Your task to perform on an android device: turn on data saver in the chrome app Image 0: 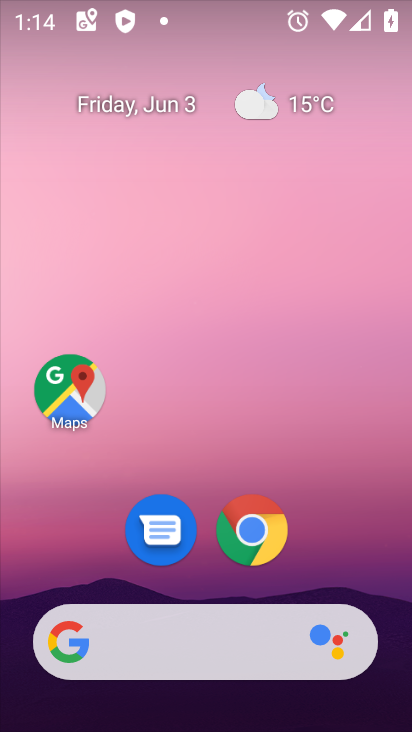
Step 0: click (259, 535)
Your task to perform on an android device: turn on data saver in the chrome app Image 1: 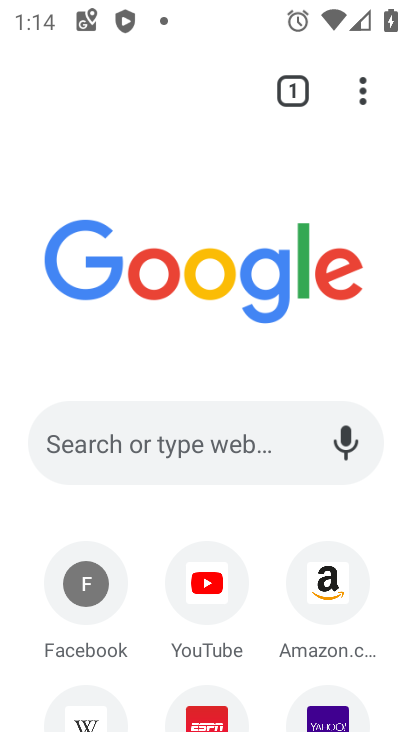
Step 1: drag from (361, 86) to (178, 546)
Your task to perform on an android device: turn on data saver in the chrome app Image 2: 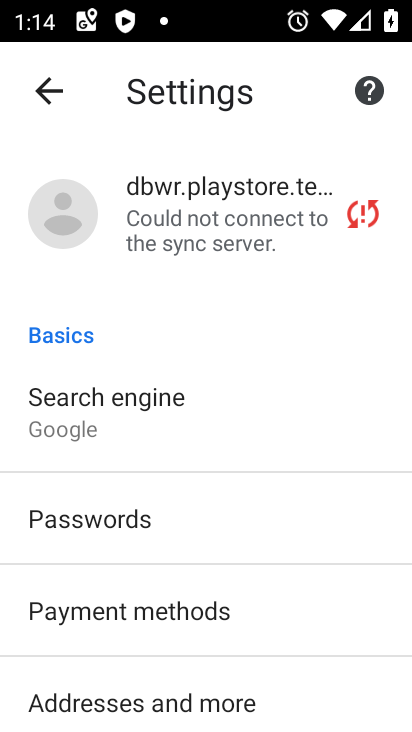
Step 2: drag from (338, 711) to (242, 46)
Your task to perform on an android device: turn on data saver in the chrome app Image 3: 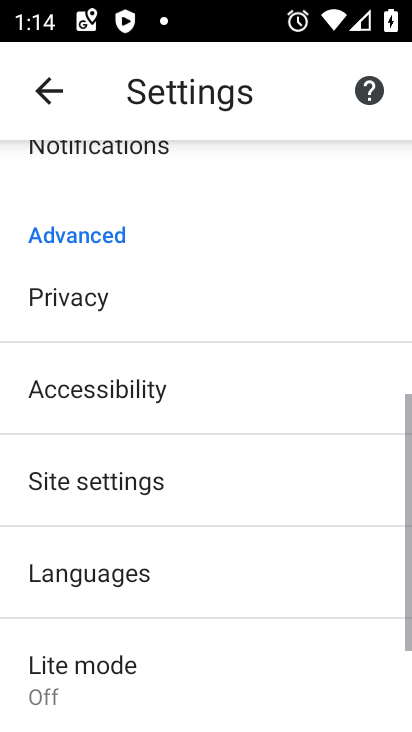
Step 3: click (74, 656)
Your task to perform on an android device: turn on data saver in the chrome app Image 4: 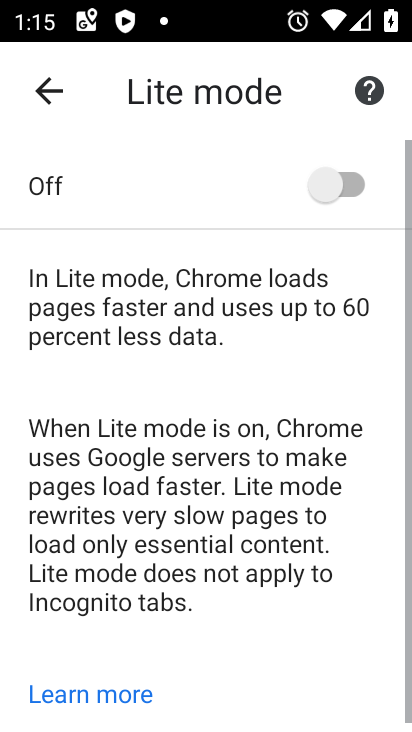
Step 4: click (357, 178)
Your task to perform on an android device: turn on data saver in the chrome app Image 5: 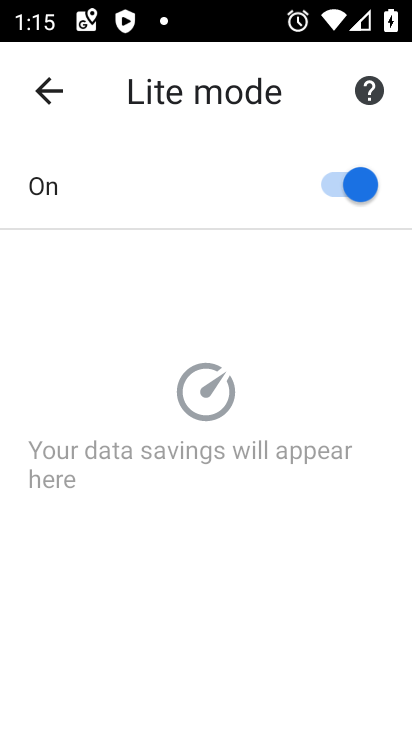
Step 5: task complete